Your task to perform on an android device: turn on data saver in the chrome app Image 0: 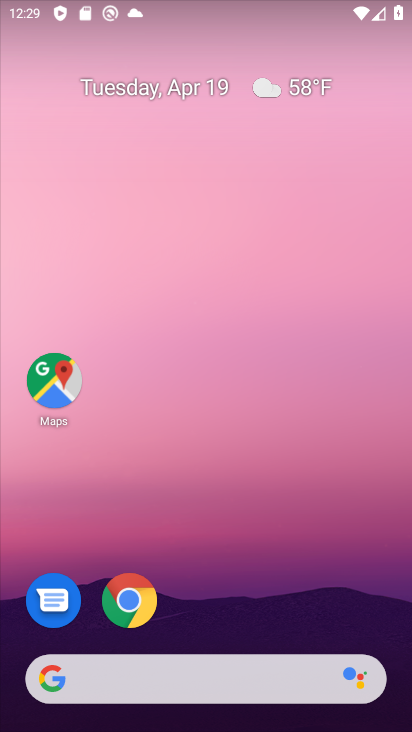
Step 0: click (205, 157)
Your task to perform on an android device: turn on data saver in the chrome app Image 1: 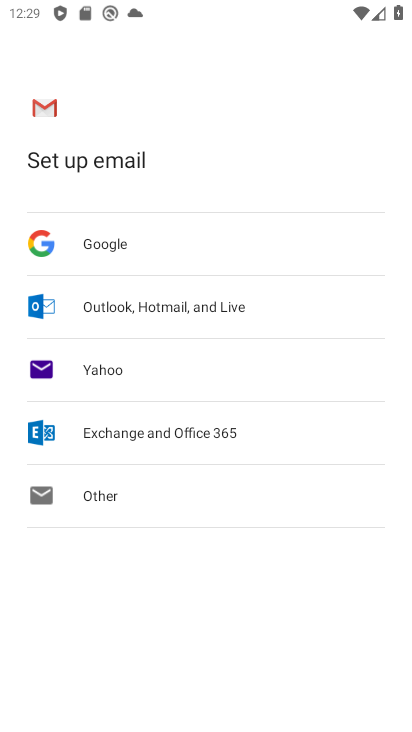
Step 1: press home button
Your task to perform on an android device: turn on data saver in the chrome app Image 2: 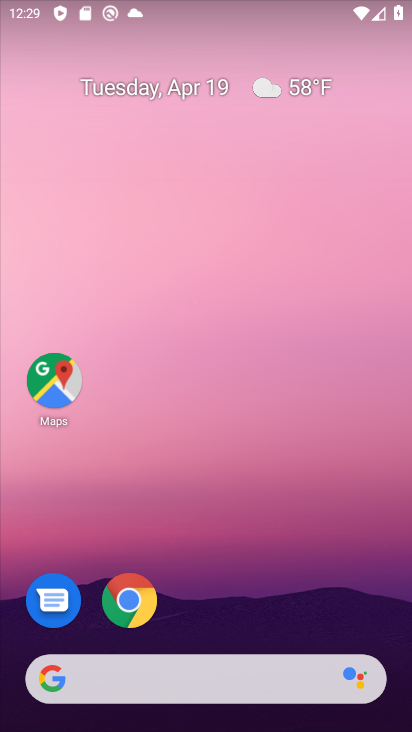
Step 2: drag from (377, 588) to (176, 33)
Your task to perform on an android device: turn on data saver in the chrome app Image 3: 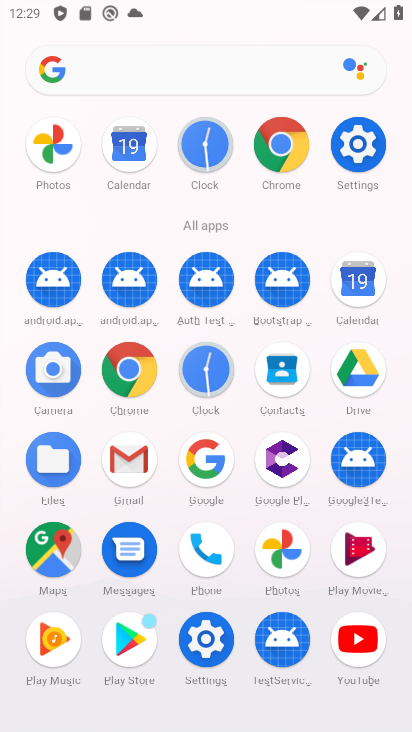
Step 3: click (279, 137)
Your task to perform on an android device: turn on data saver in the chrome app Image 4: 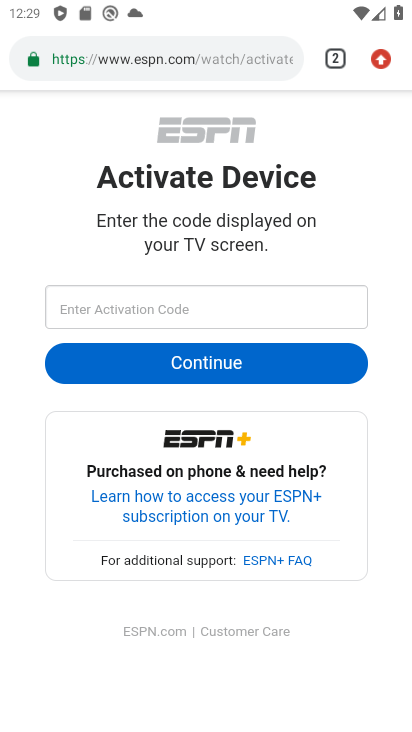
Step 4: drag from (381, 74) to (286, 613)
Your task to perform on an android device: turn on data saver in the chrome app Image 5: 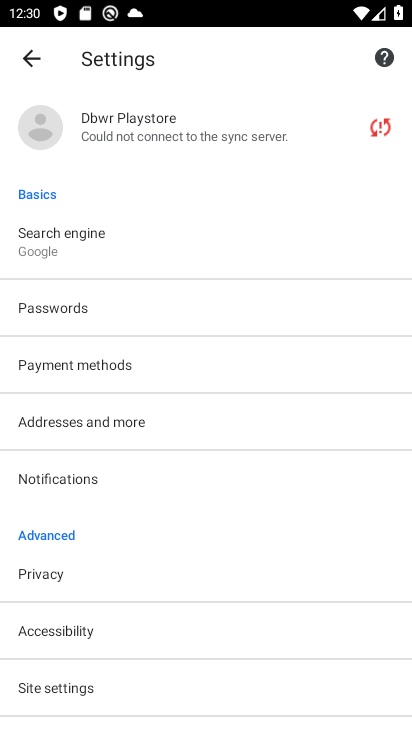
Step 5: drag from (280, 686) to (278, 445)
Your task to perform on an android device: turn on data saver in the chrome app Image 6: 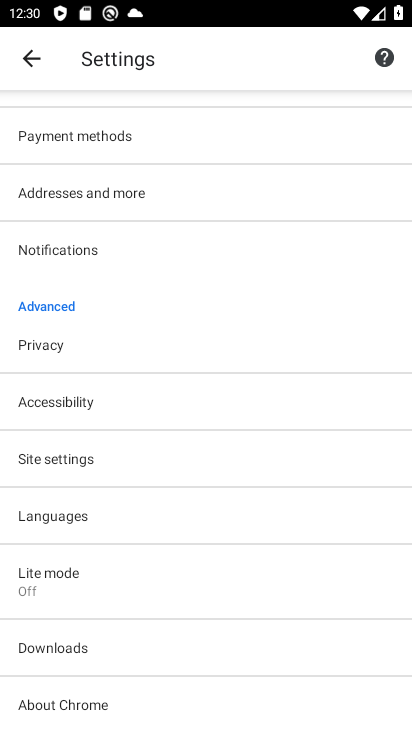
Step 6: click (272, 571)
Your task to perform on an android device: turn on data saver in the chrome app Image 7: 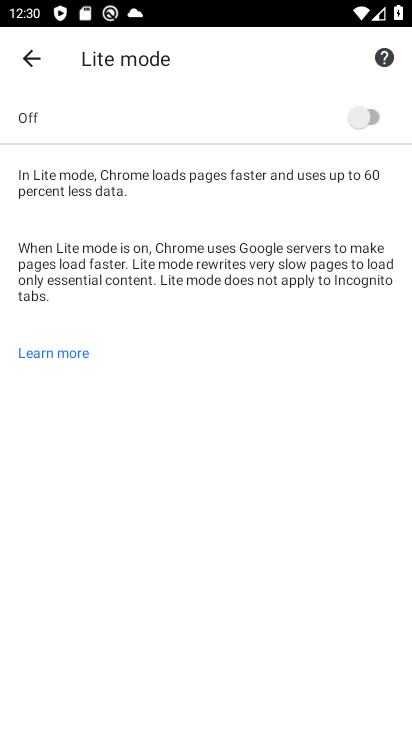
Step 7: click (370, 132)
Your task to perform on an android device: turn on data saver in the chrome app Image 8: 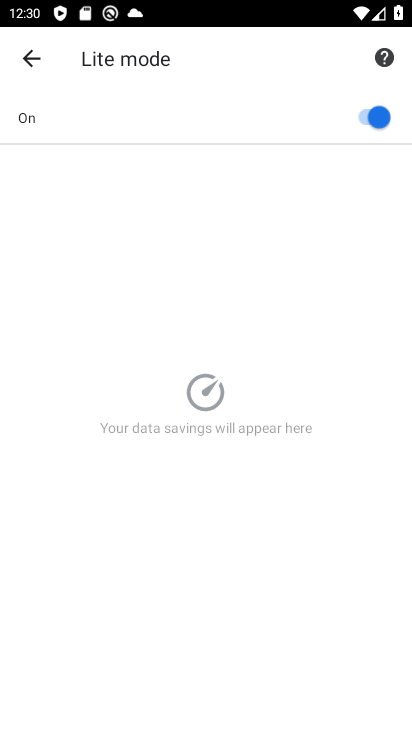
Step 8: task complete